Your task to perform on an android device: Go to settings Image 0: 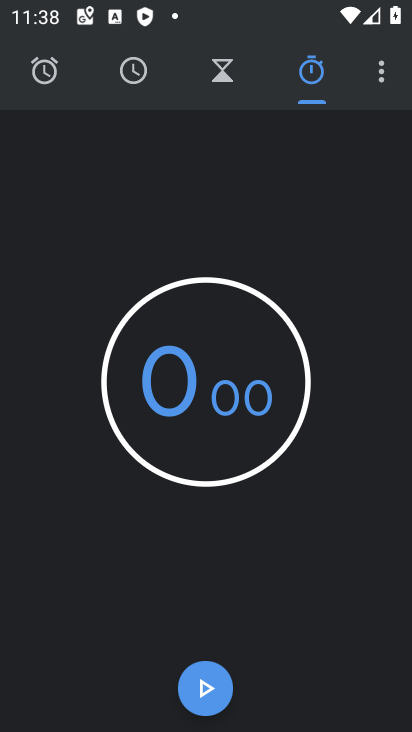
Step 0: press home button
Your task to perform on an android device: Go to settings Image 1: 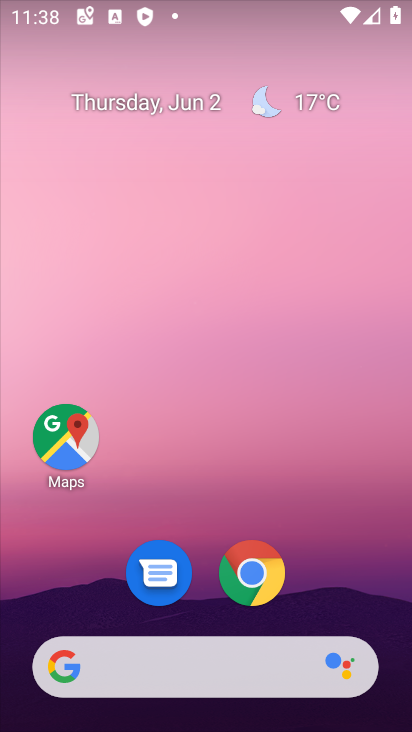
Step 1: drag from (360, 541) to (308, 3)
Your task to perform on an android device: Go to settings Image 2: 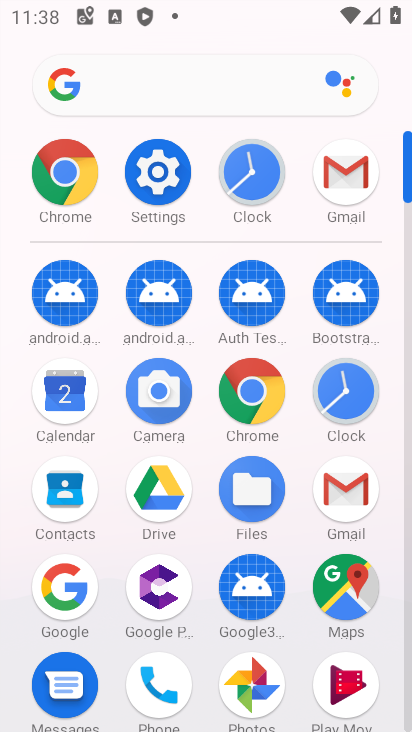
Step 2: click (155, 238)
Your task to perform on an android device: Go to settings Image 3: 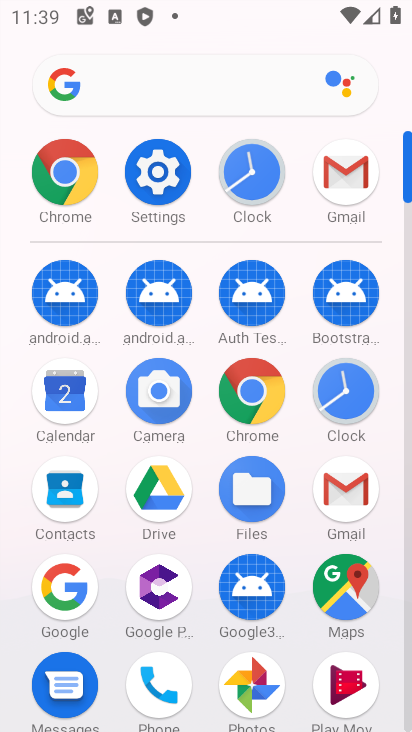
Step 3: click (144, 177)
Your task to perform on an android device: Go to settings Image 4: 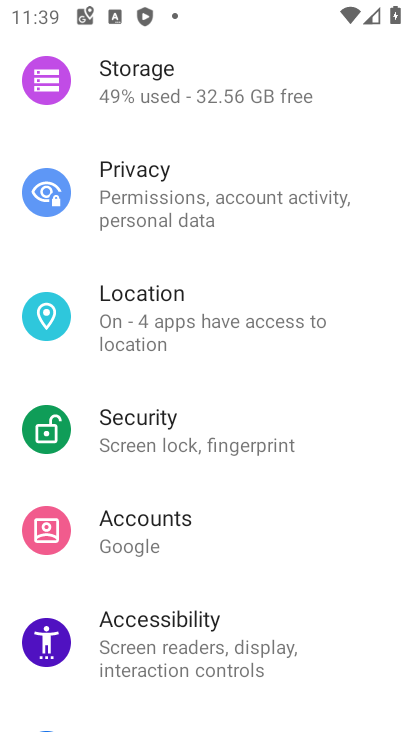
Step 4: task complete